Your task to perform on an android device: turn on location history Image 0: 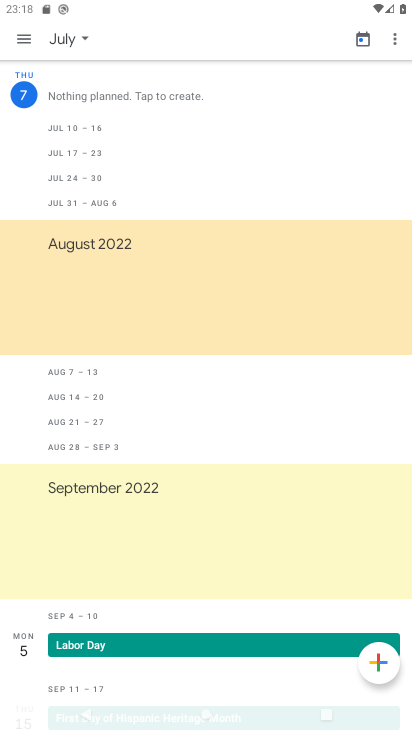
Step 0: press home button
Your task to perform on an android device: turn on location history Image 1: 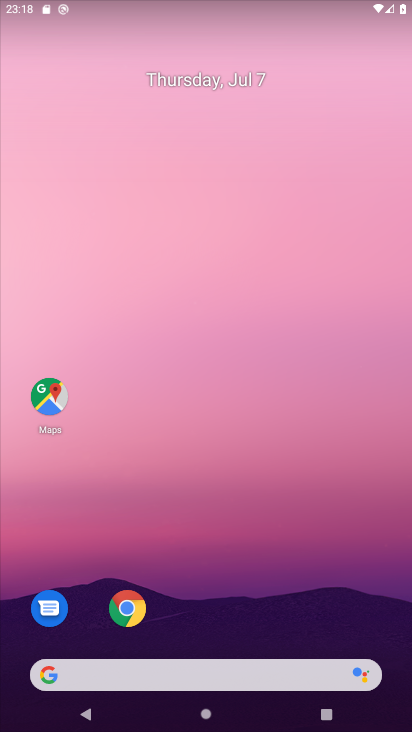
Step 1: drag from (200, 653) to (217, 457)
Your task to perform on an android device: turn on location history Image 2: 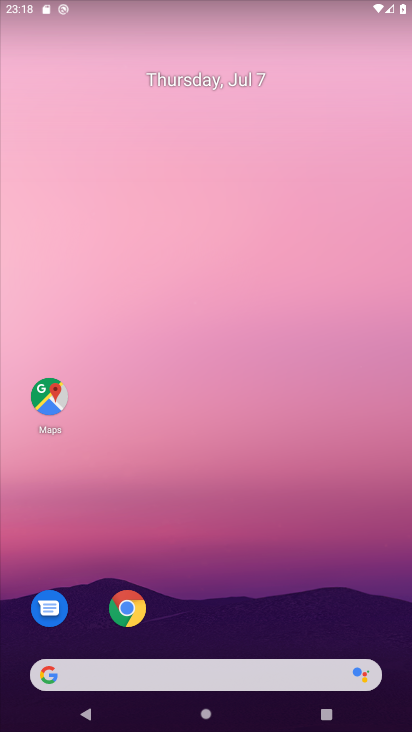
Step 2: drag from (235, 605) to (248, 436)
Your task to perform on an android device: turn on location history Image 3: 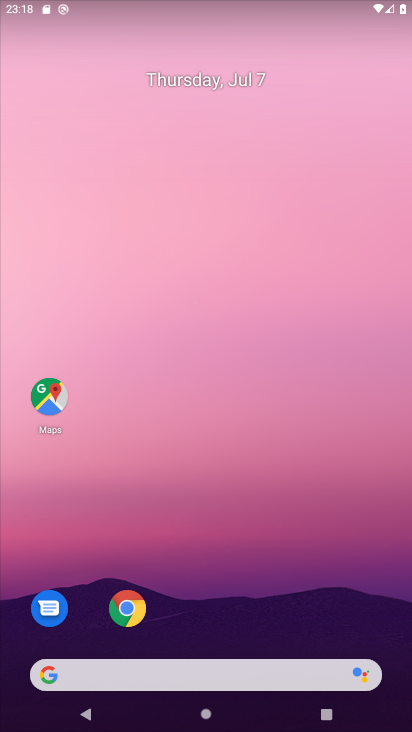
Step 3: drag from (269, 664) to (267, 21)
Your task to perform on an android device: turn on location history Image 4: 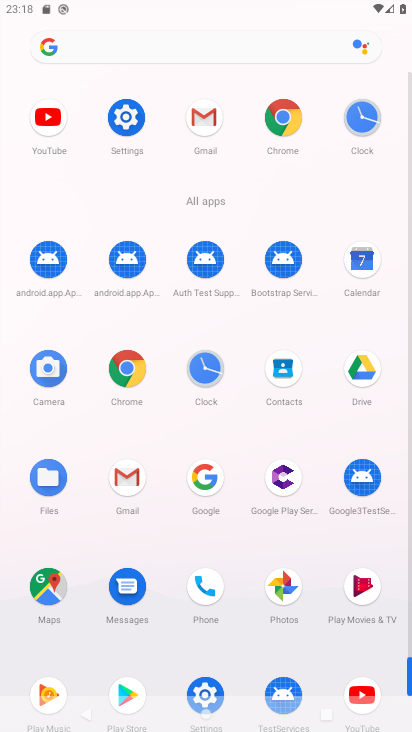
Step 4: click (114, 120)
Your task to perform on an android device: turn on location history Image 5: 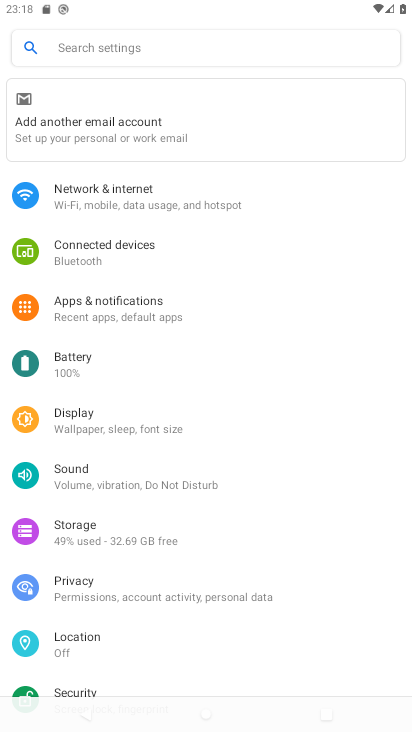
Step 5: click (111, 632)
Your task to perform on an android device: turn on location history Image 6: 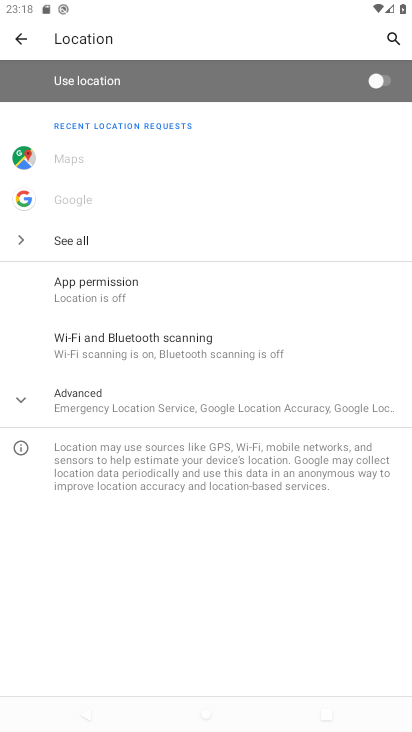
Step 6: click (170, 399)
Your task to perform on an android device: turn on location history Image 7: 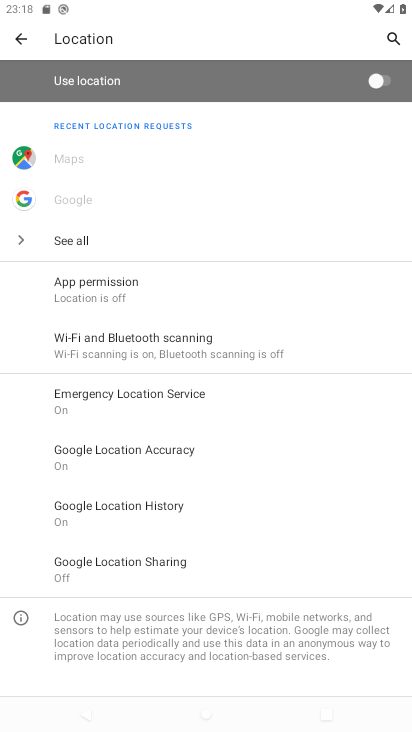
Step 7: click (149, 497)
Your task to perform on an android device: turn on location history Image 8: 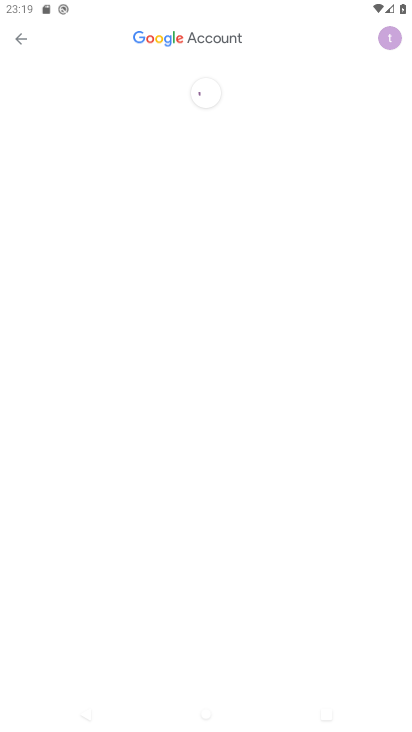
Step 8: task complete